Your task to perform on an android device: turn on data saver in the chrome app Image 0: 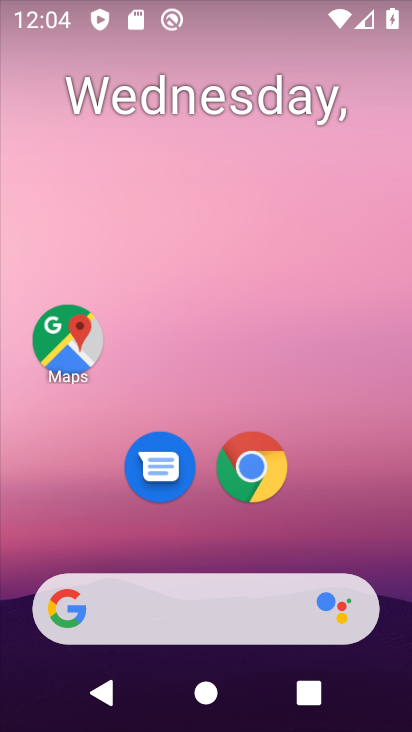
Step 0: click (253, 455)
Your task to perform on an android device: turn on data saver in the chrome app Image 1: 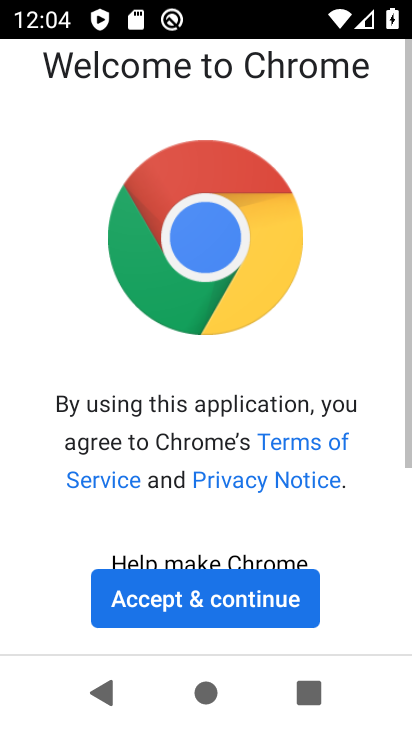
Step 1: click (263, 598)
Your task to perform on an android device: turn on data saver in the chrome app Image 2: 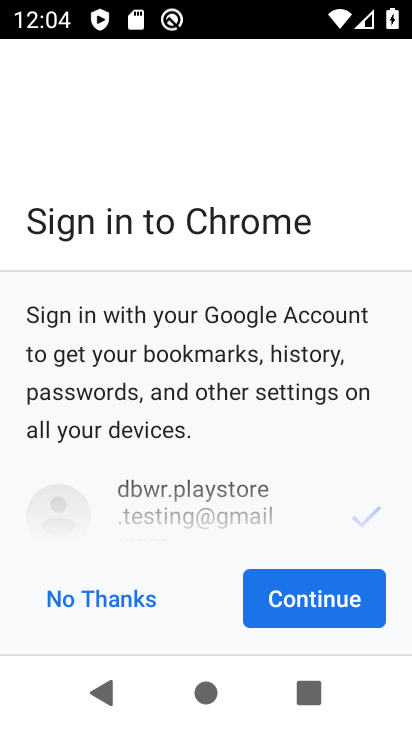
Step 2: click (306, 594)
Your task to perform on an android device: turn on data saver in the chrome app Image 3: 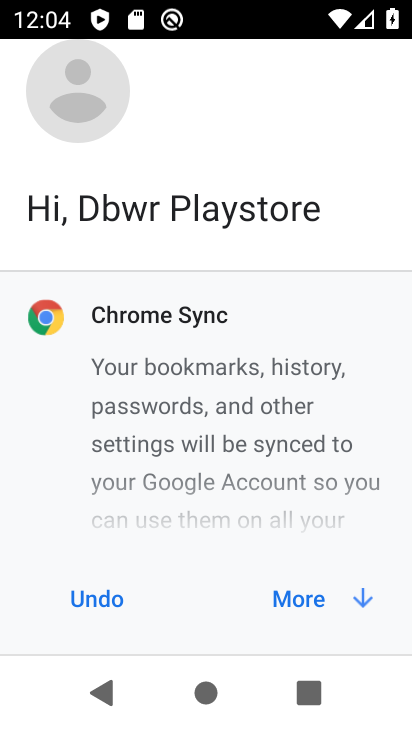
Step 3: click (301, 602)
Your task to perform on an android device: turn on data saver in the chrome app Image 4: 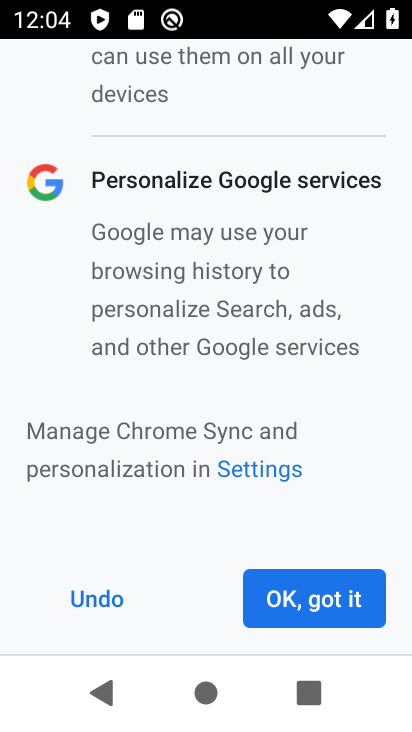
Step 4: click (299, 602)
Your task to perform on an android device: turn on data saver in the chrome app Image 5: 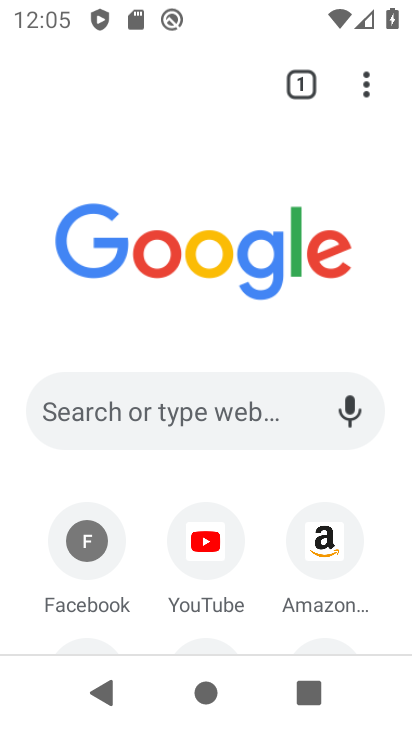
Step 5: click (366, 83)
Your task to perform on an android device: turn on data saver in the chrome app Image 6: 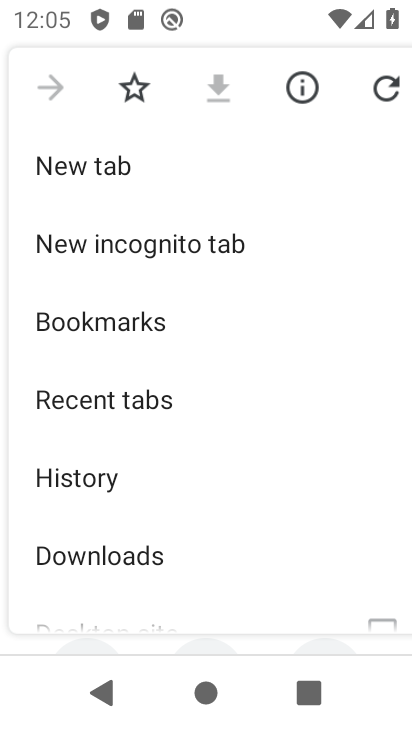
Step 6: drag from (116, 545) to (129, 170)
Your task to perform on an android device: turn on data saver in the chrome app Image 7: 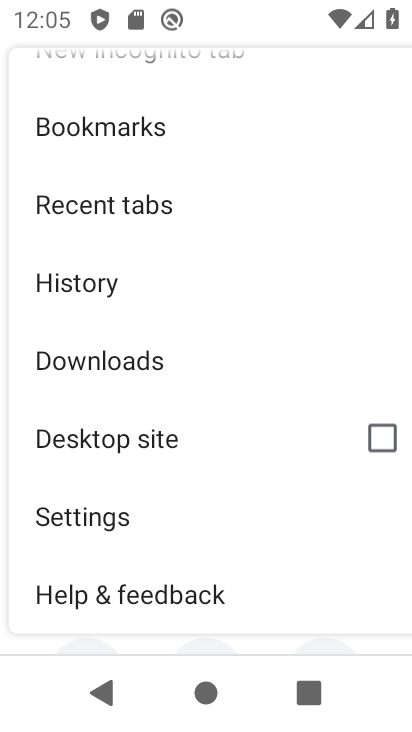
Step 7: click (98, 508)
Your task to perform on an android device: turn on data saver in the chrome app Image 8: 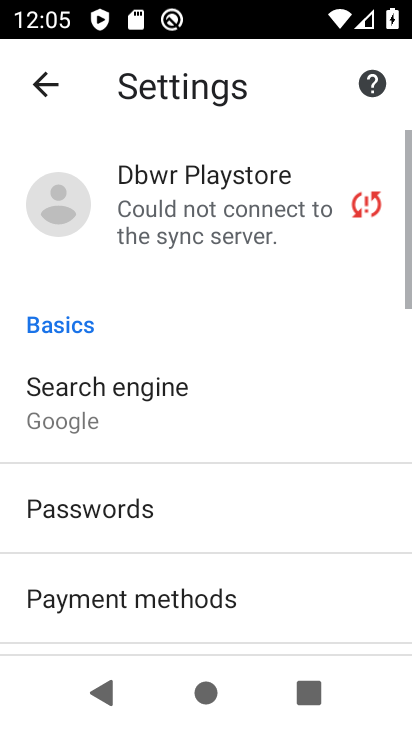
Step 8: drag from (170, 519) to (184, 184)
Your task to perform on an android device: turn on data saver in the chrome app Image 9: 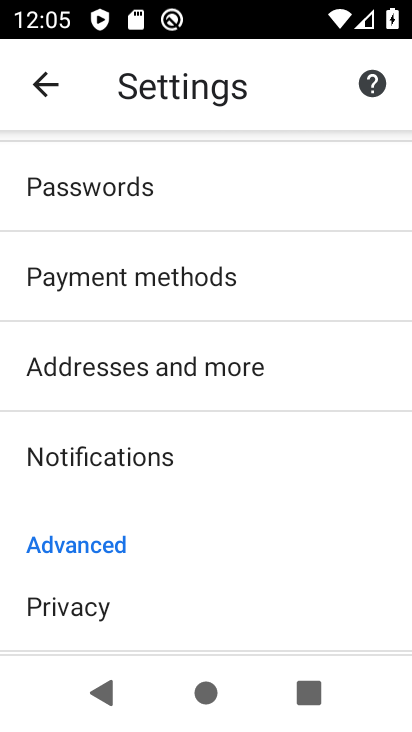
Step 9: drag from (129, 491) to (189, 158)
Your task to perform on an android device: turn on data saver in the chrome app Image 10: 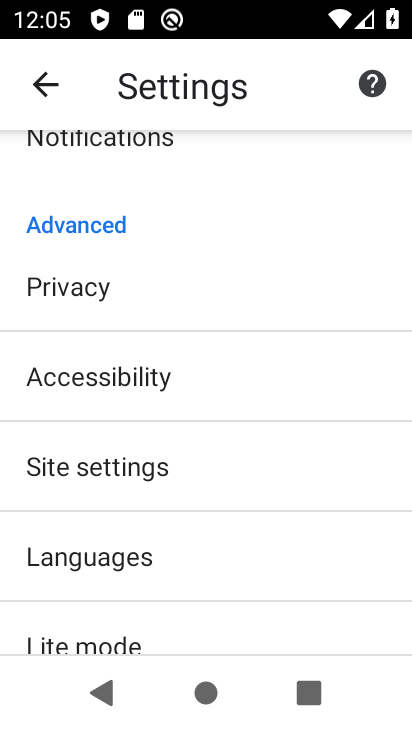
Step 10: click (120, 479)
Your task to perform on an android device: turn on data saver in the chrome app Image 11: 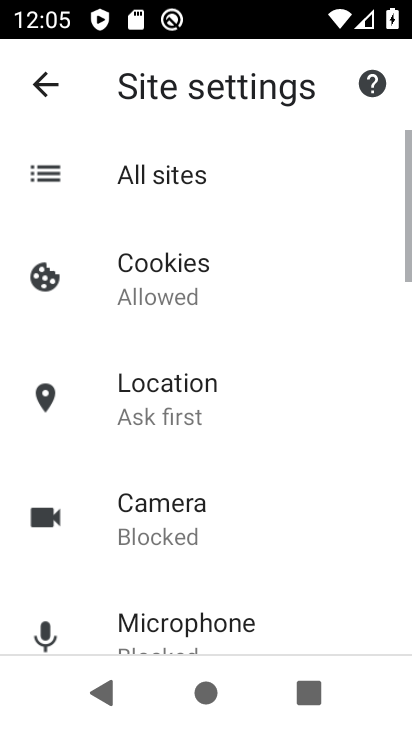
Step 11: click (22, 77)
Your task to perform on an android device: turn on data saver in the chrome app Image 12: 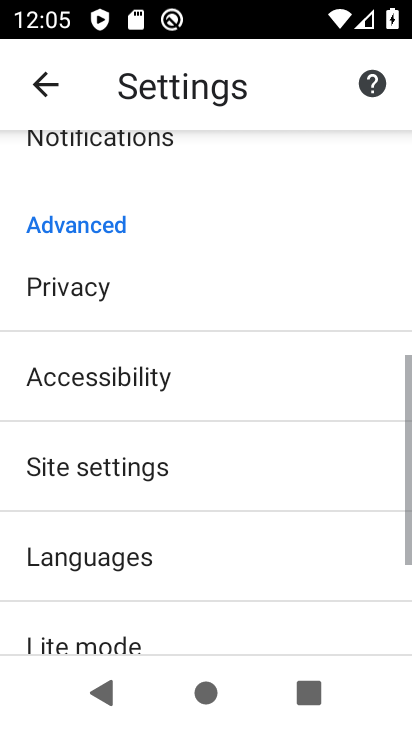
Step 12: drag from (139, 567) to (164, 192)
Your task to perform on an android device: turn on data saver in the chrome app Image 13: 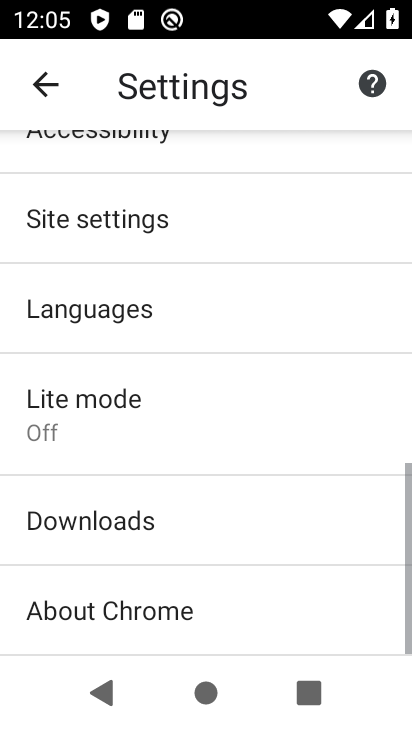
Step 13: click (104, 435)
Your task to perform on an android device: turn on data saver in the chrome app Image 14: 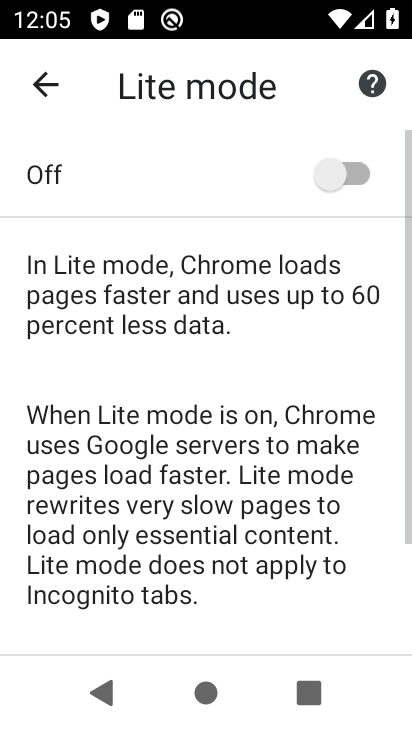
Step 14: click (355, 152)
Your task to perform on an android device: turn on data saver in the chrome app Image 15: 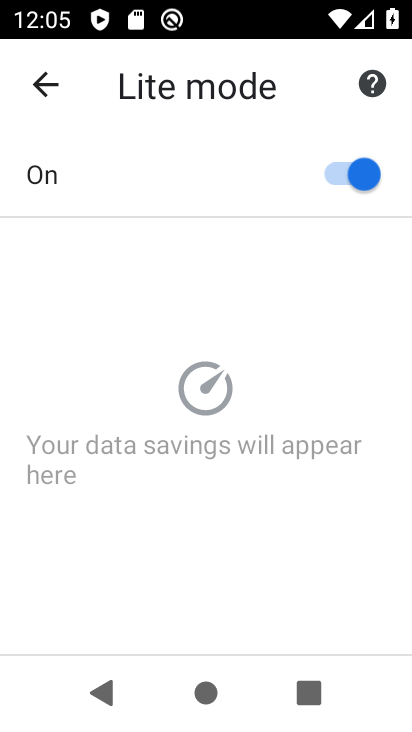
Step 15: task complete